Your task to perform on an android device: open the mobile data screen to see how much data has been used Image 0: 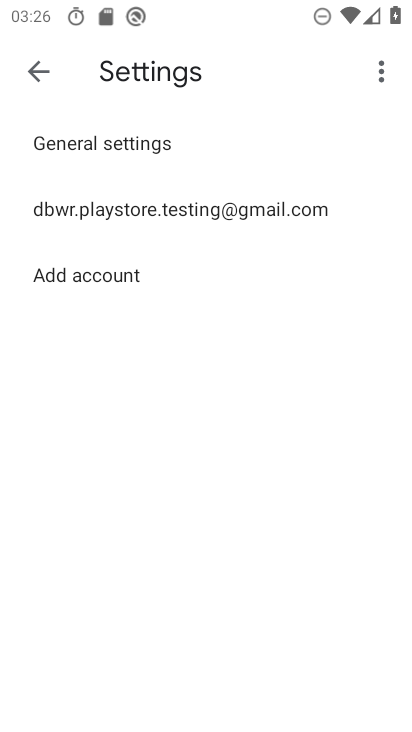
Step 0: press home button
Your task to perform on an android device: open the mobile data screen to see how much data has been used Image 1: 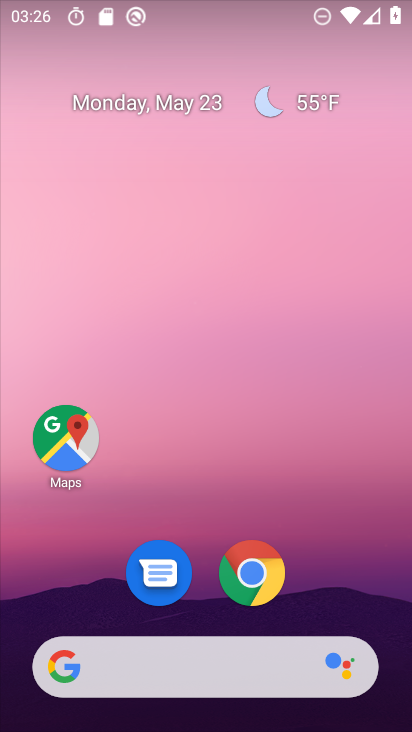
Step 1: drag from (310, 584) to (302, 56)
Your task to perform on an android device: open the mobile data screen to see how much data has been used Image 2: 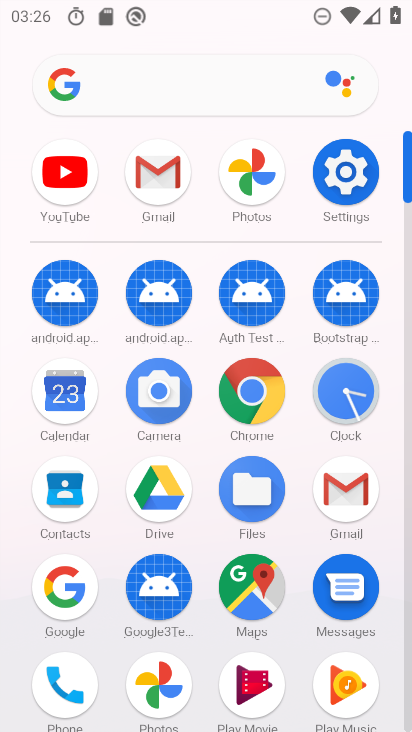
Step 2: click (336, 184)
Your task to perform on an android device: open the mobile data screen to see how much data has been used Image 3: 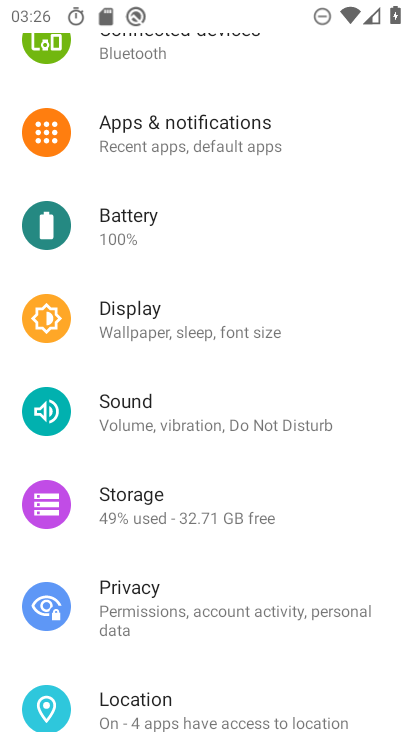
Step 3: drag from (252, 103) to (282, 433)
Your task to perform on an android device: open the mobile data screen to see how much data has been used Image 4: 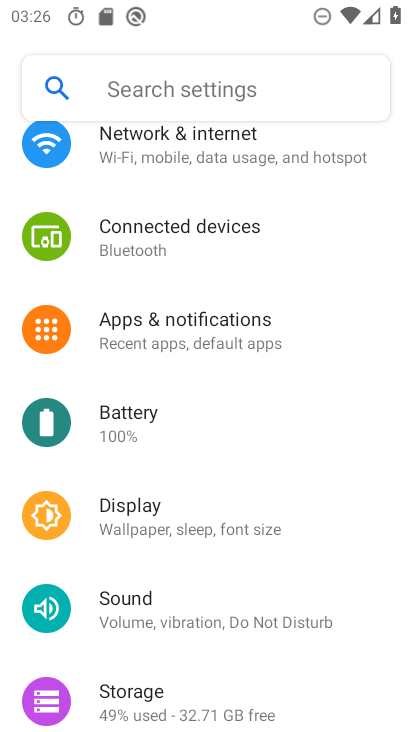
Step 4: click (239, 144)
Your task to perform on an android device: open the mobile data screen to see how much data has been used Image 5: 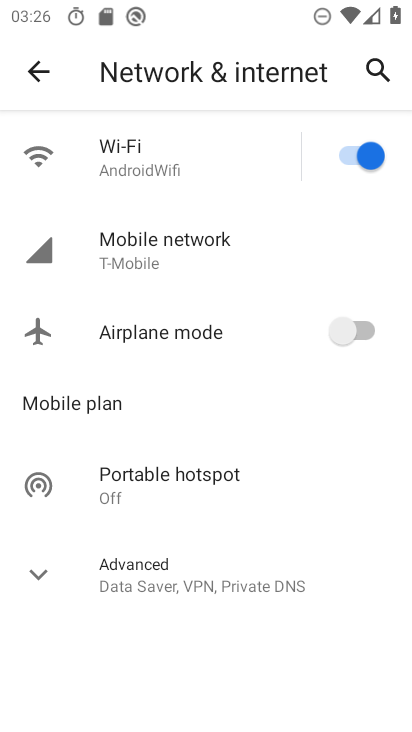
Step 5: click (120, 255)
Your task to perform on an android device: open the mobile data screen to see how much data has been used Image 6: 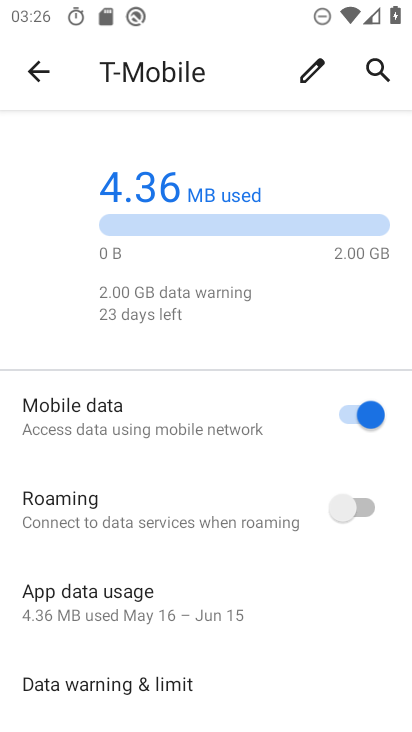
Step 6: click (134, 615)
Your task to perform on an android device: open the mobile data screen to see how much data has been used Image 7: 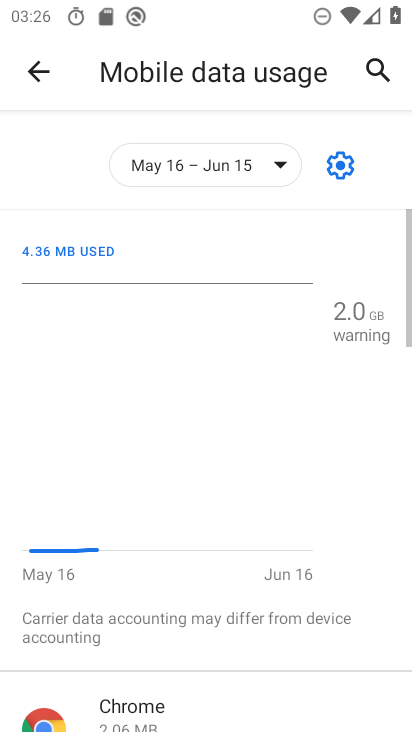
Step 7: task complete